Your task to perform on an android device: Open Maps and search for coffee Image 0: 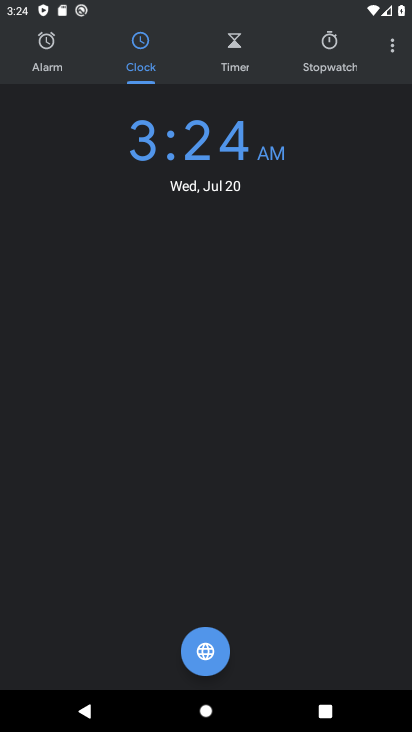
Step 0: press home button
Your task to perform on an android device: Open Maps and search for coffee Image 1: 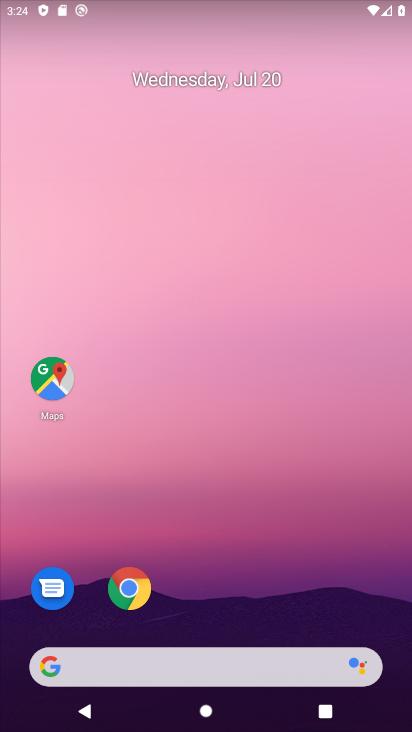
Step 1: click (50, 370)
Your task to perform on an android device: Open Maps and search for coffee Image 2: 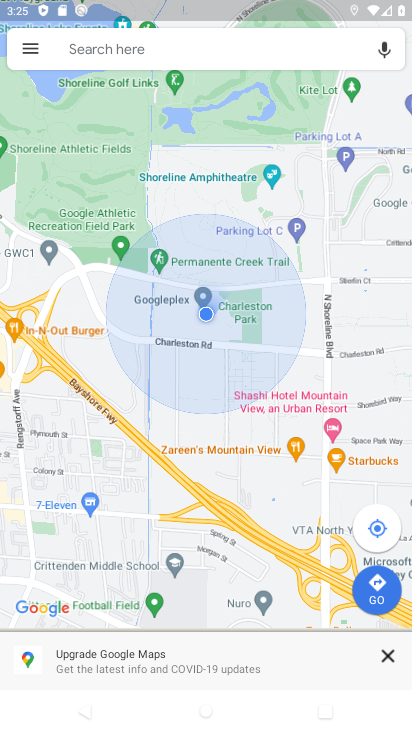
Step 2: click (270, 53)
Your task to perform on an android device: Open Maps and search for coffee Image 3: 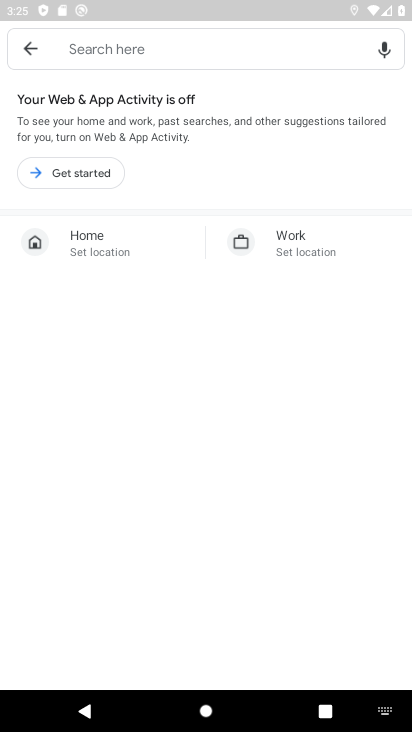
Step 3: type "coffee"
Your task to perform on an android device: Open Maps and search for coffee Image 4: 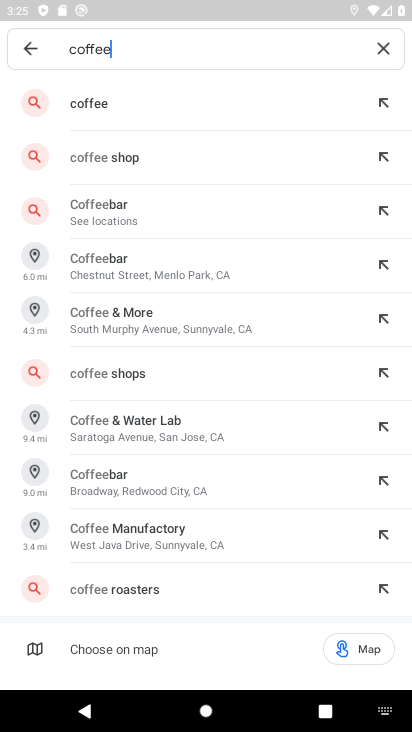
Step 4: click (99, 85)
Your task to perform on an android device: Open Maps and search for coffee Image 5: 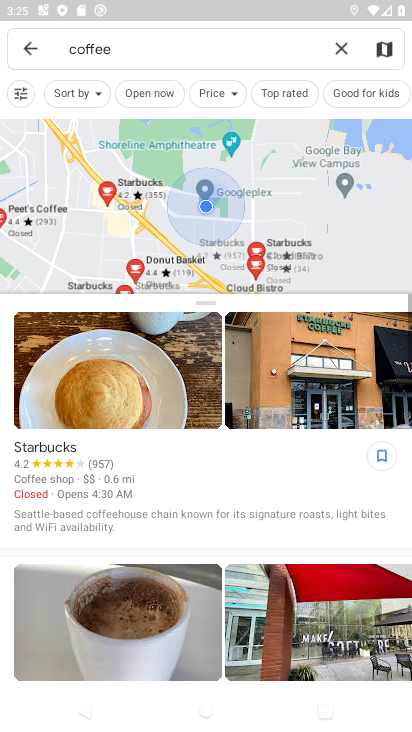
Step 5: task complete